Your task to perform on an android device: Toggle the flashlight Image 0: 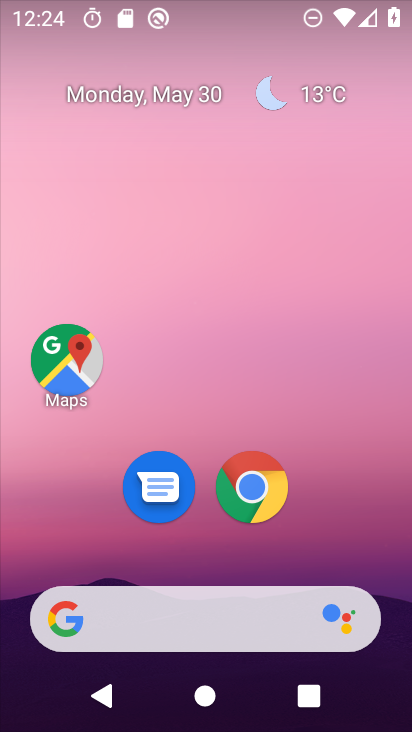
Step 0: drag from (392, 305) to (389, 124)
Your task to perform on an android device: Toggle the flashlight Image 1: 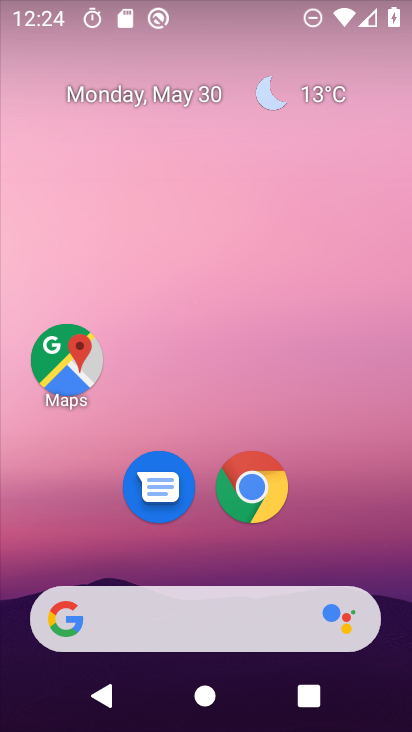
Step 1: drag from (383, 698) to (363, 61)
Your task to perform on an android device: Toggle the flashlight Image 2: 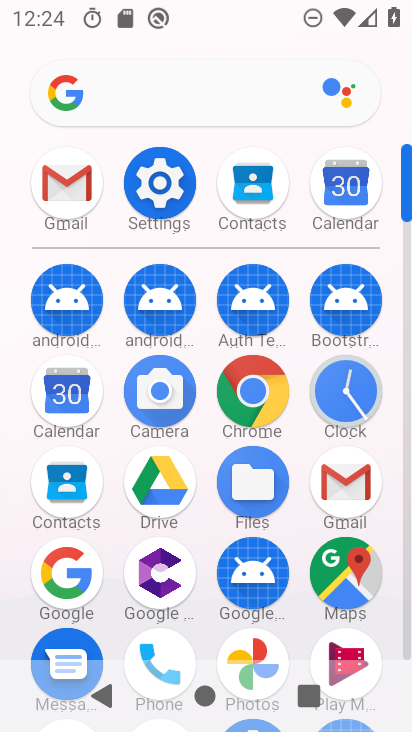
Step 2: click (155, 186)
Your task to perform on an android device: Toggle the flashlight Image 3: 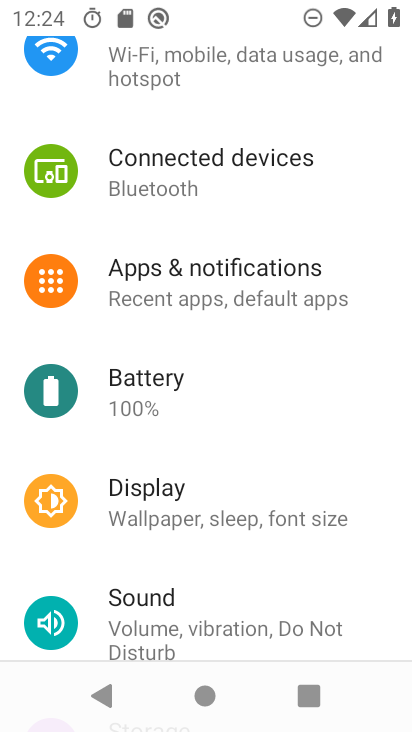
Step 3: click (129, 511)
Your task to perform on an android device: Toggle the flashlight Image 4: 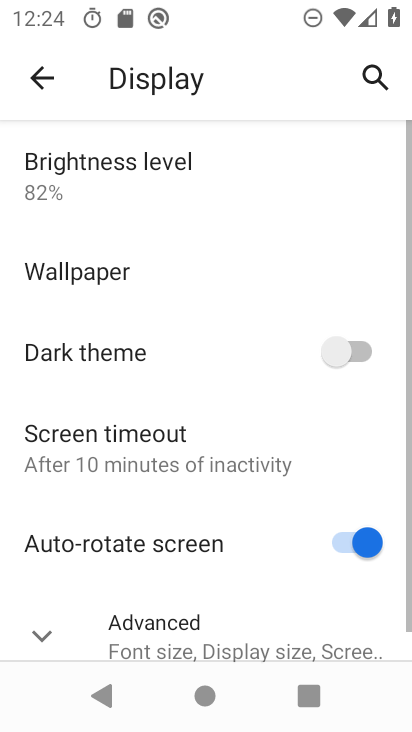
Step 4: task complete